Your task to perform on an android device: Open Chrome and go to settings Image 0: 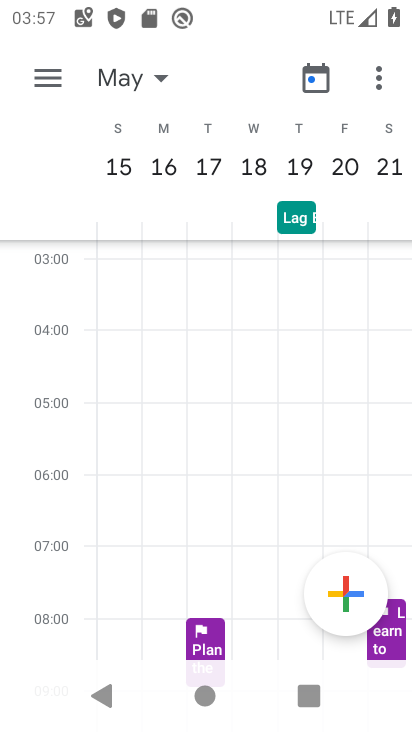
Step 0: press home button
Your task to perform on an android device: Open Chrome and go to settings Image 1: 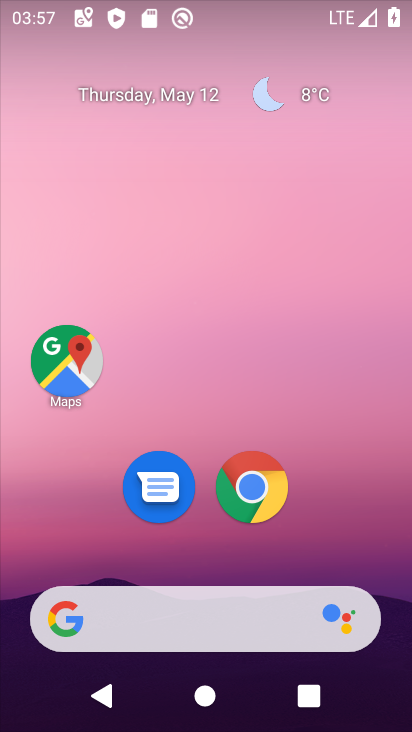
Step 1: click (273, 495)
Your task to perform on an android device: Open Chrome and go to settings Image 2: 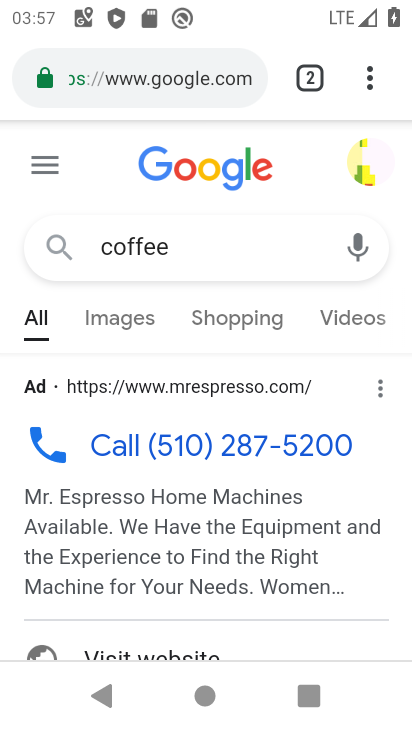
Step 2: click (372, 69)
Your task to perform on an android device: Open Chrome and go to settings Image 3: 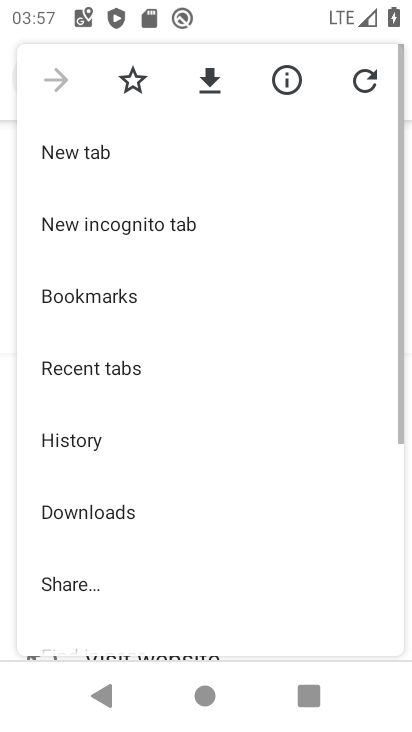
Step 3: drag from (219, 515) to (249, 6)
Your task to perform on an android device: Open Chrome and go to settings Image 4: 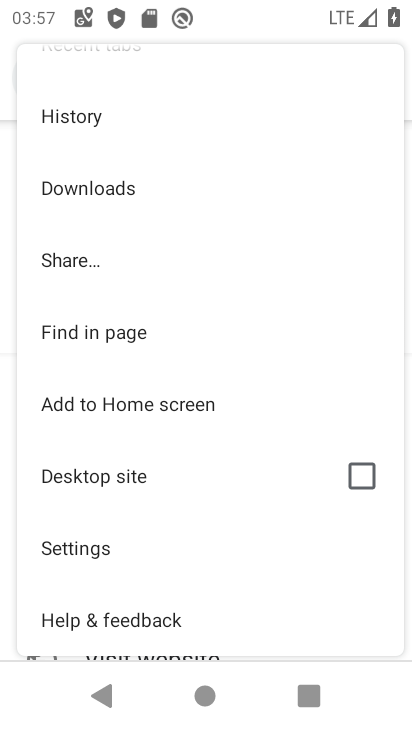
Step 4: click (92, 553)
Your task to perform on an android device: Open Chrome and go to settings Image 5: 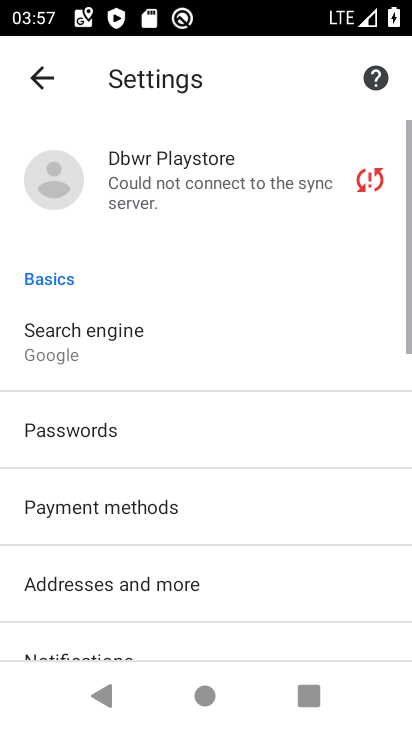
Step 5: task complete